Your task to perform on an android device: Do I have any events this weekend? Image 0: 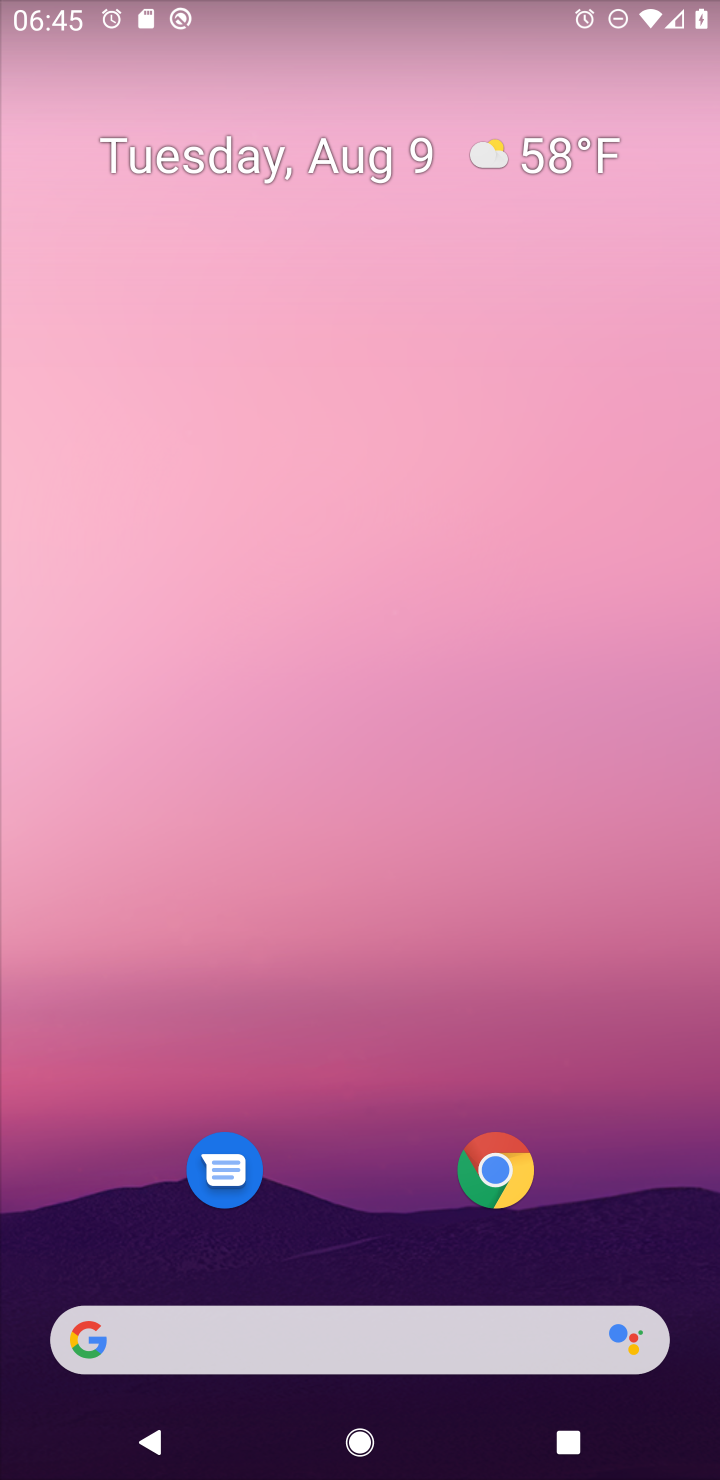
Step 0: drag from (382, 1210) to (412, 124)
Your task to perform on an android device: Do I have any events this weekend? Image 1: 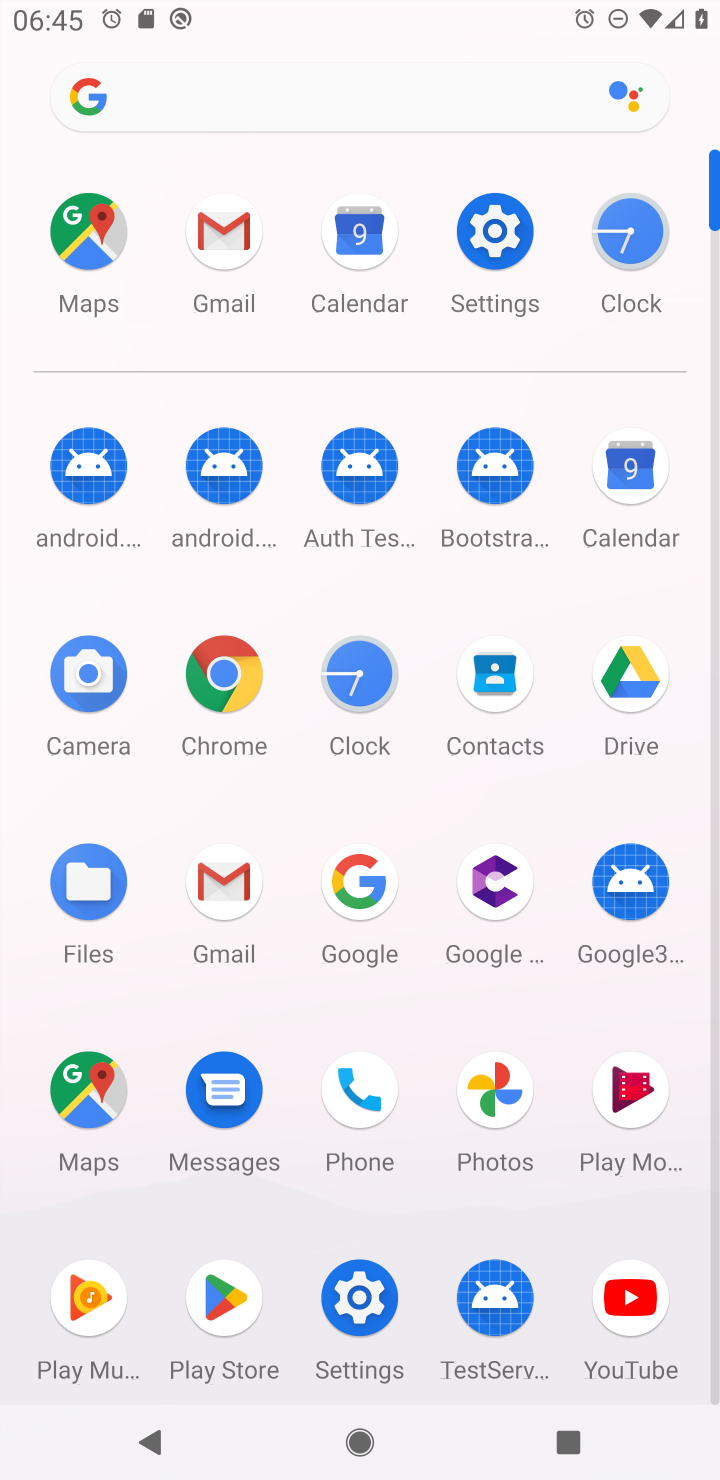
Step 1: click (627, 475)
Your task to perform on an android device: Do I have any events this weekend? Image 2: 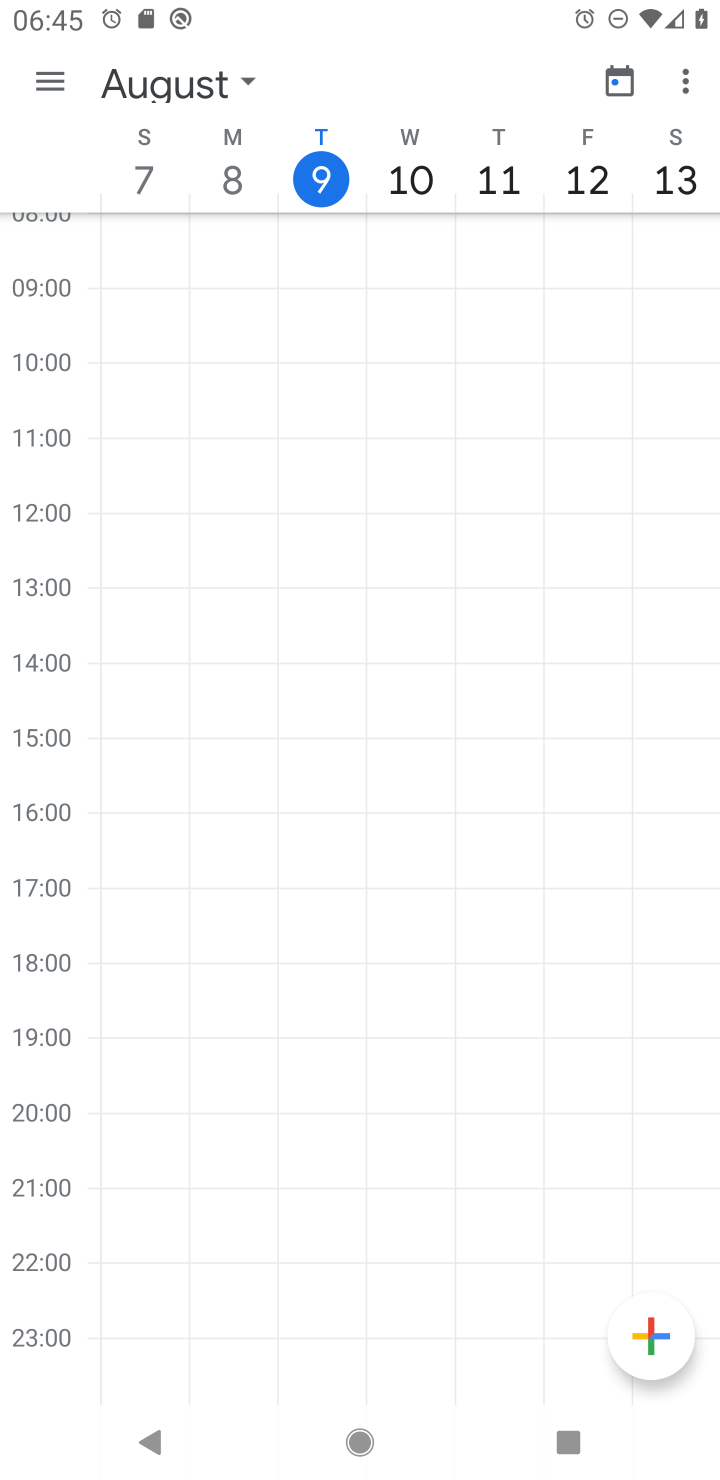
Step 2: click (48, 78)
Your task to perform on an android device: Do I have any events this weekend? Image 3: 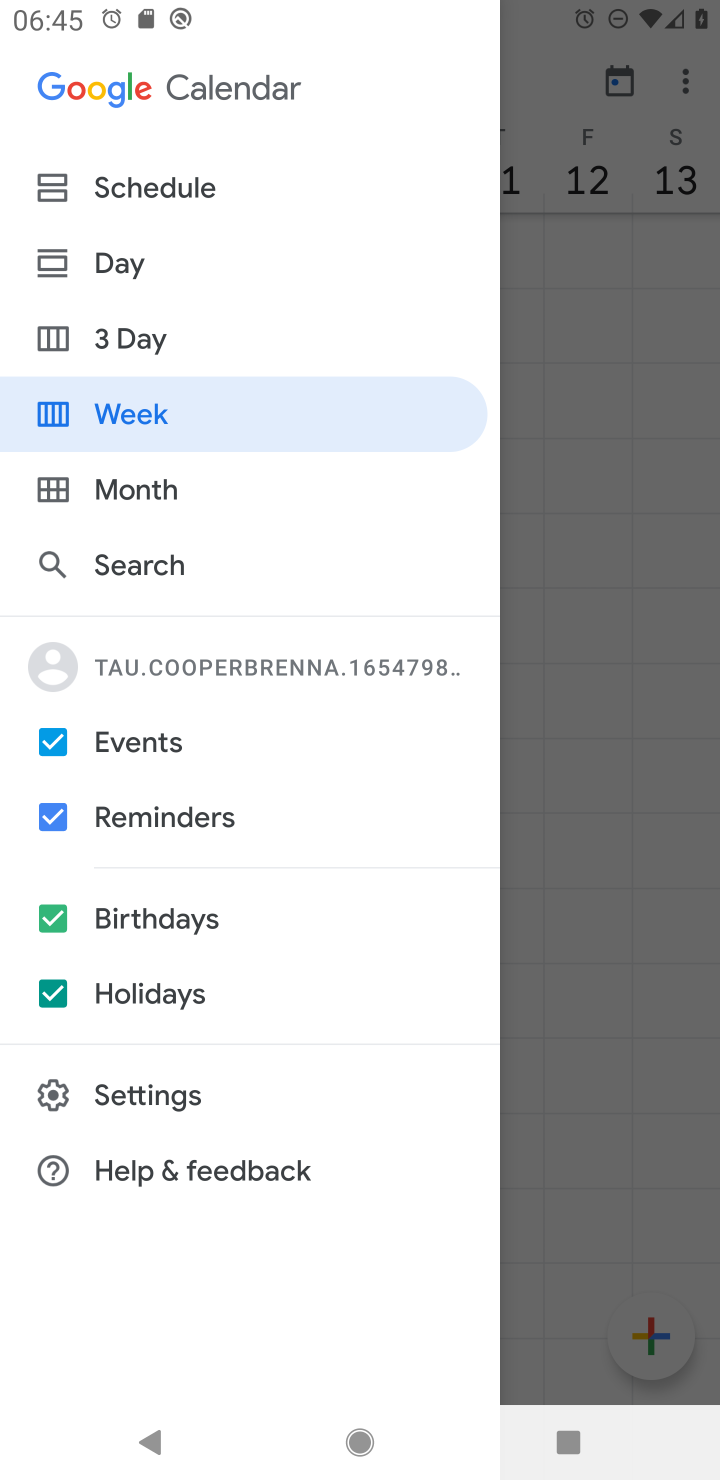
Step 3: click (139, 412)
Your task to perform on an android device: Do I have any events this weekend? Image 4: 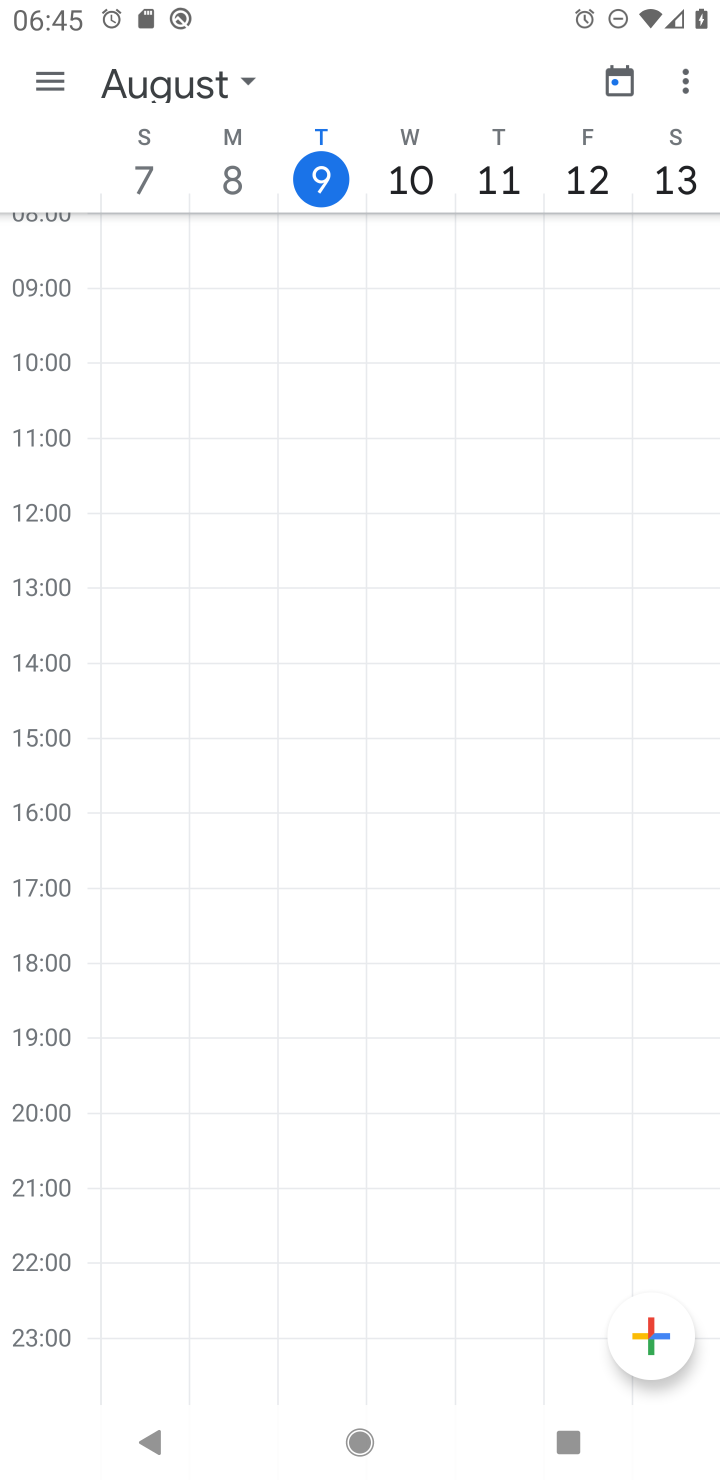
Step 4: task complete